Your task to perform on an android device: set the timer Image 0: 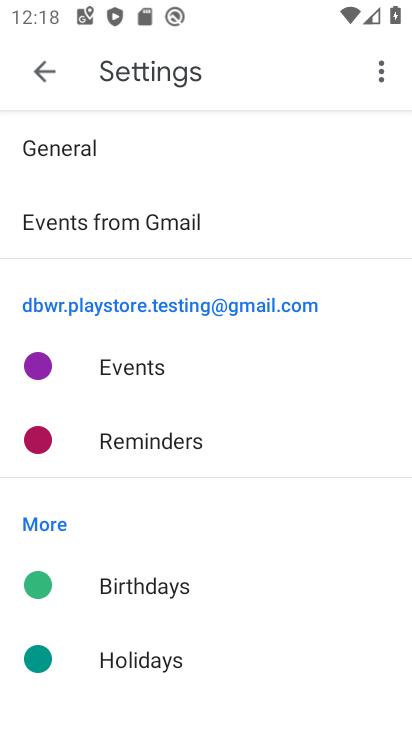
Step 0: press home button
Your task to perform on an android device: set the timer Image 1: 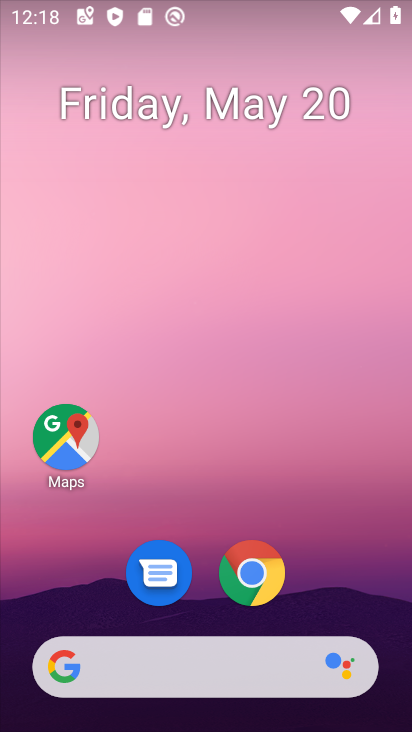
Step 1: drag from (318, 570) to (249, 45)
Your task to perform on an android device: set the timer Image 2: 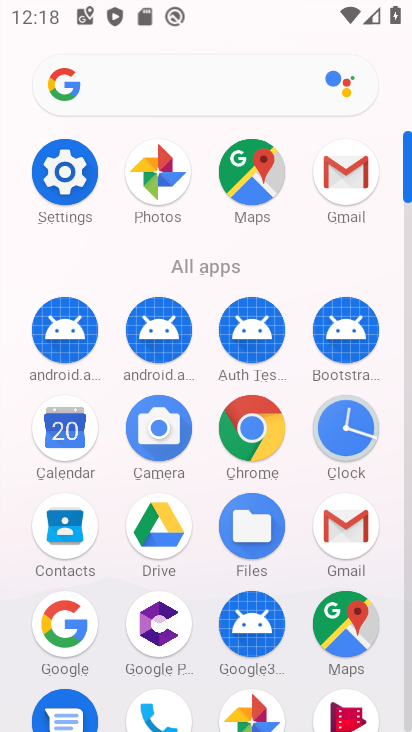
Step 2: click (351, 433)
Your task to perform on an android device: set the timer Image 3: 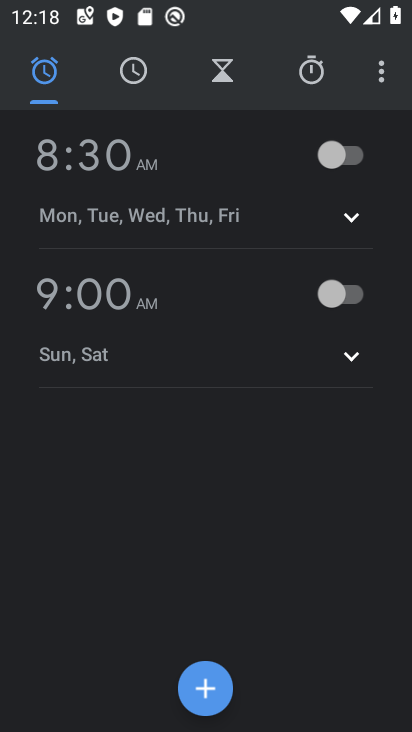
Step 3: click (203, 71)
Your task to perform on an android device: set the timer Image 4: 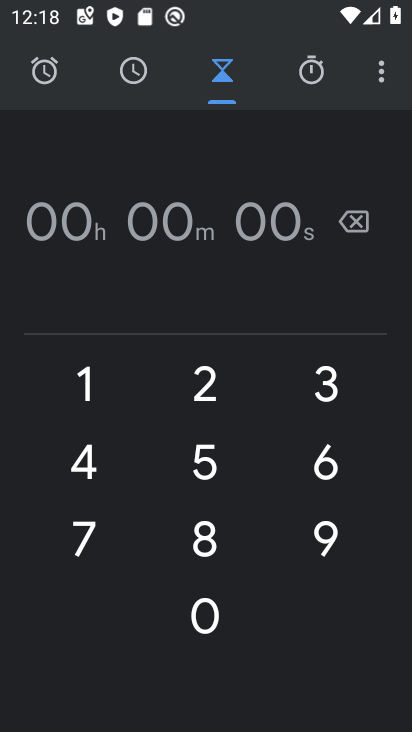
Step 4: click (298, 535)
Your task to perform on an android device: set the timer Image 5: 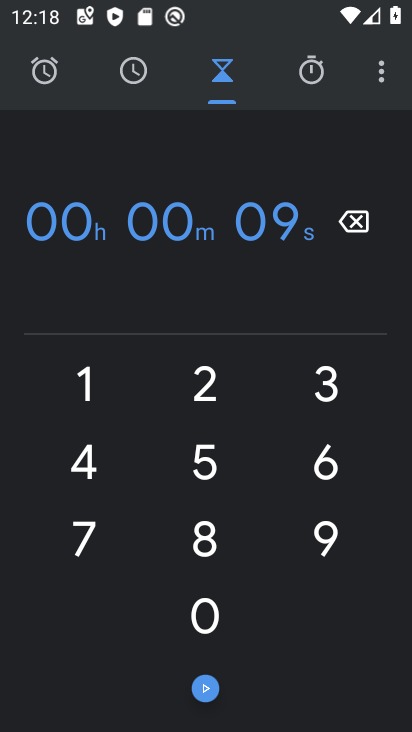
Step 5: click (108, 373)
Your task to perform on an android device: set the timer Image 6: 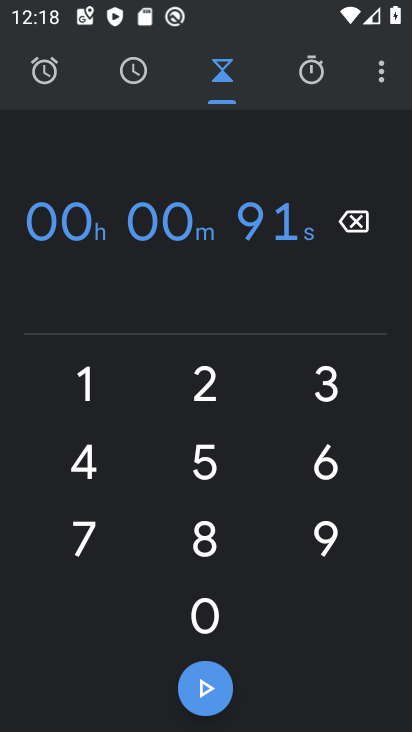
Step 6: click (347, 559)
Your task to perform on an android device: set the timer Image 7: 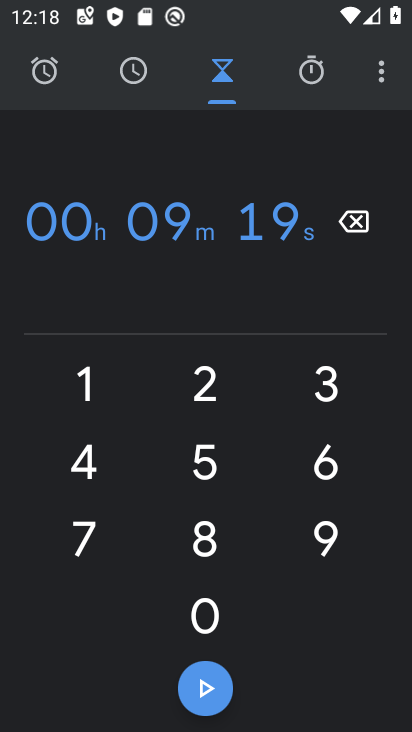
Step 7: click (100, 367)
Your task to perform on an android device: set the timer Image 8: 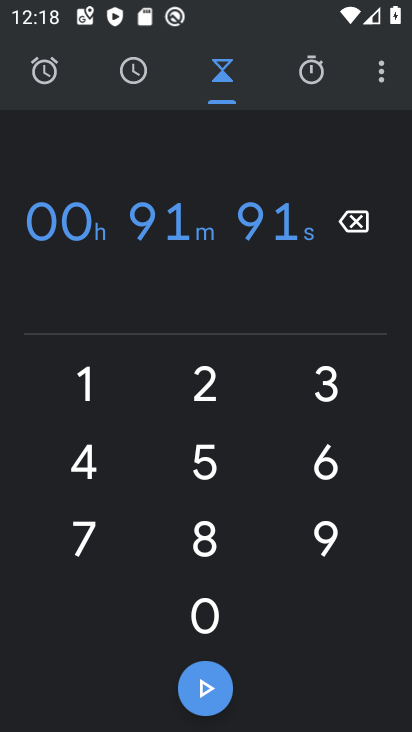
Step 8: click (326, 524)
Your task to perform on an android device: set the timer Image 9: 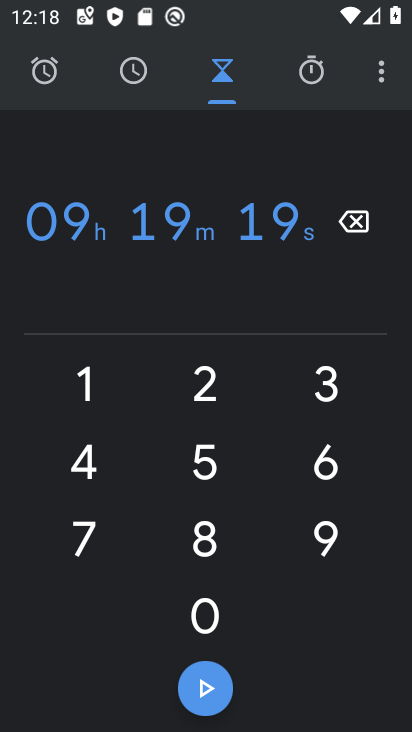
Step 9: click (122, 374)
Your task to perform on an android device: set the timer Image 10: 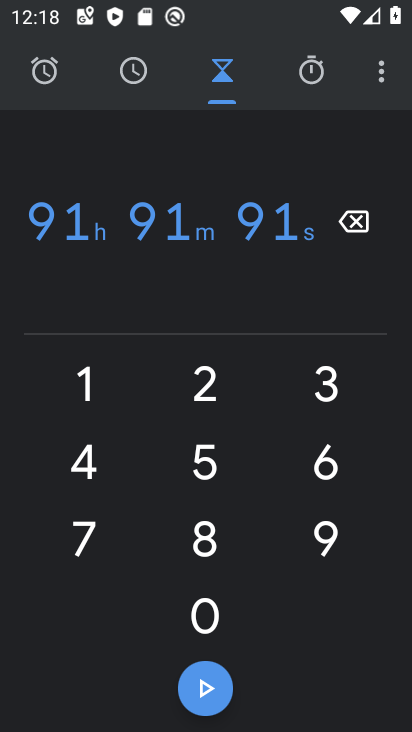
Step 10: click (205, 695)
Your task to perform on an android device: set the timer Image 11: 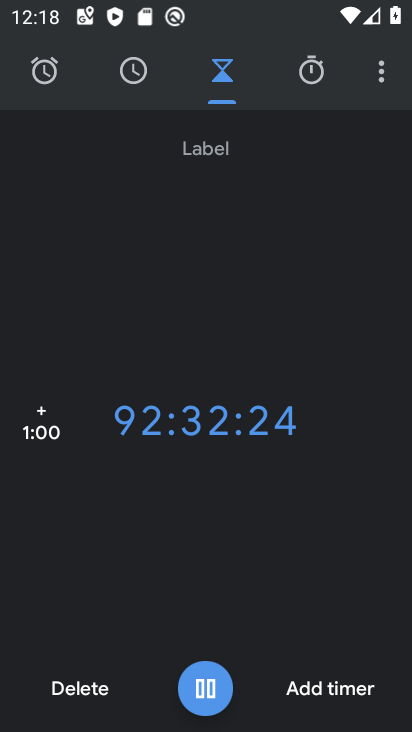
Step 11: task complete